Your task to perform on an android device: toggle notification dots Image 0: 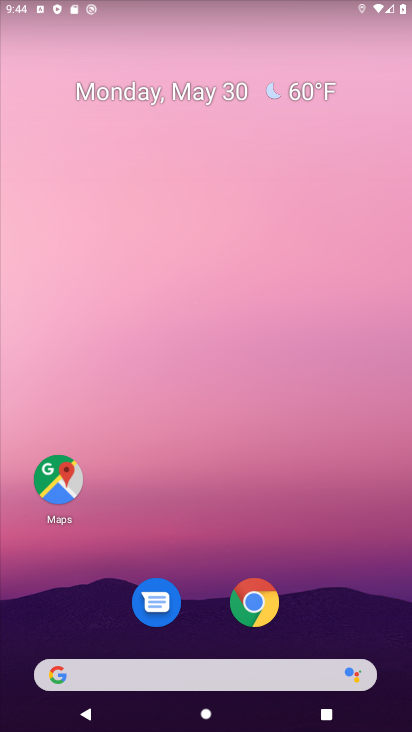
Step 0: drag from (191, 638) to (213, 149)
Your task to perform on an android device: toggle notification dots Image 1: 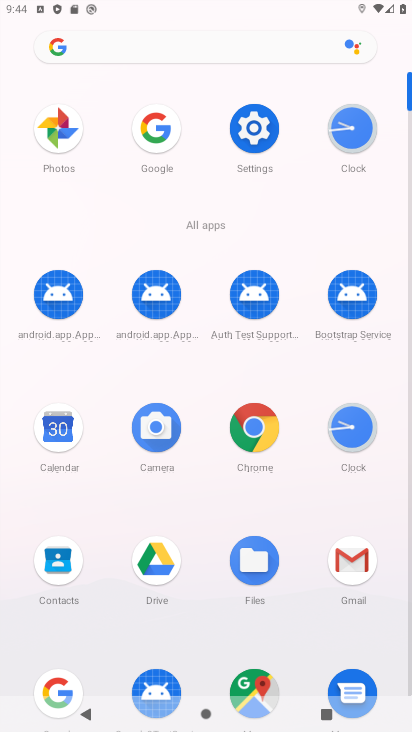
Step 1: click (235, 141)
Your task to perform on an android device: toggle notification dots Image 2: 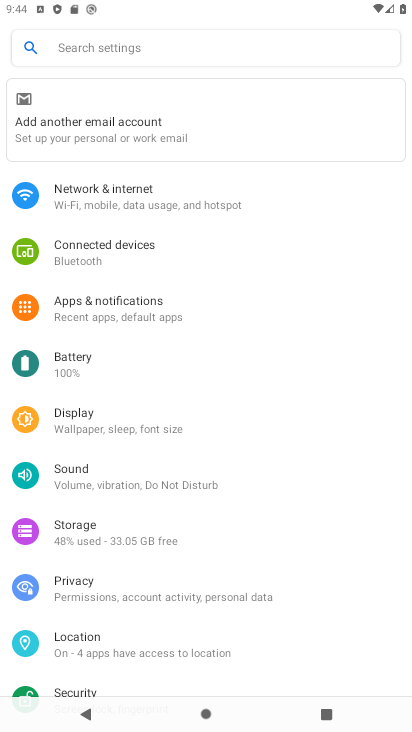
Step 2: click (103, 325)
Your task to perform on an android device: toggle notification dots Image 3: 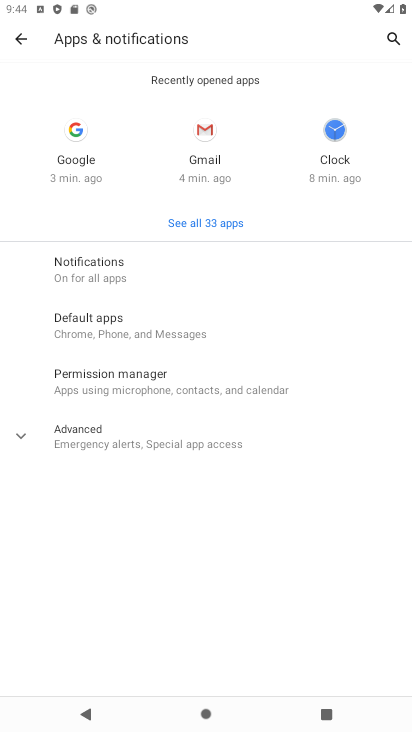
Step 3: click (110, 276)
Your task to perform on an android device: toggle notification dots Image 4: 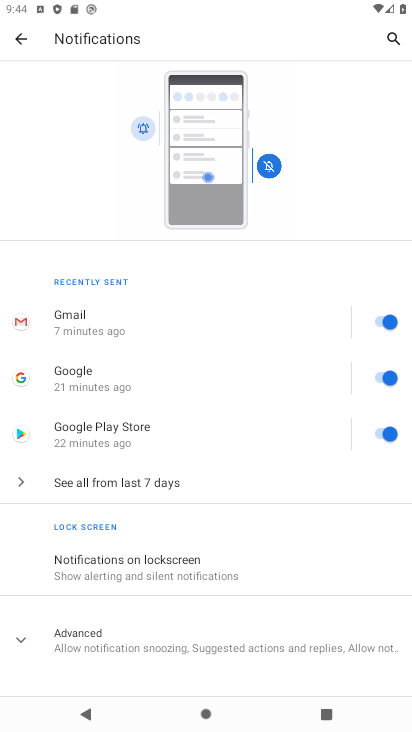
Step 4: drag from (226, 638) to (211, 318)
Your task to perform on an android device: toggle notification dots Image 5: 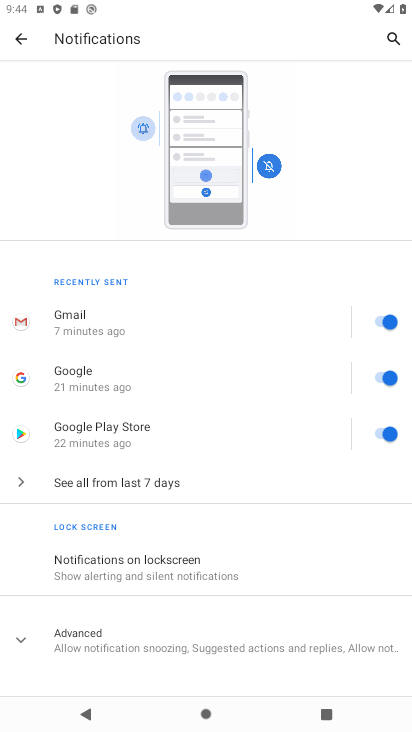
Step 5: click (81, 643)
Your task to perform on an android device: toggle notification dots Image 6: 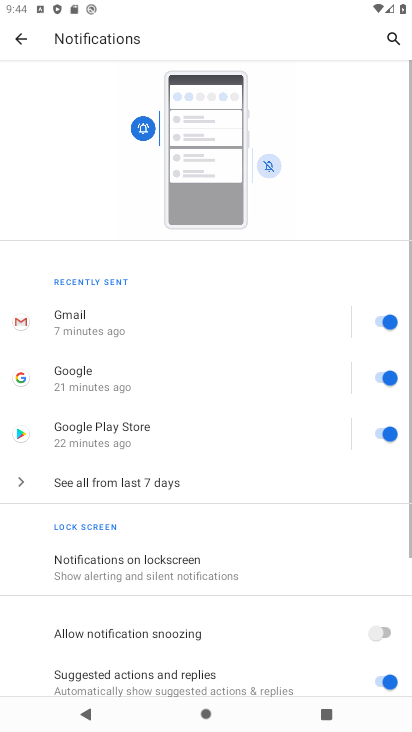
Step 6: drag from (138, 637) to (221, 312)
Your task to perform on an android device: toggle notification dots Image 7: 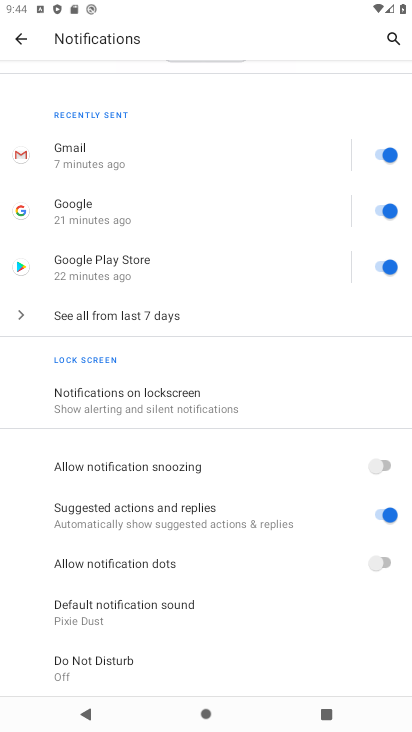
Step 7: click (392, 558)
Your task to perform on an android device: toggle notification dots Image 8: 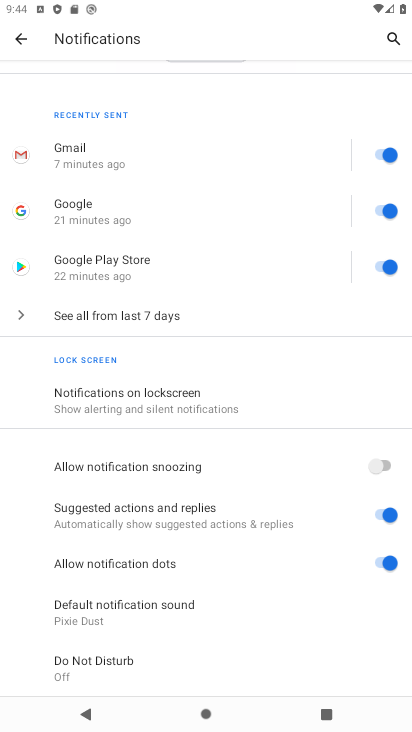
Step 8: task complete